Your task to perform on an android device: turn vacation reply on in the gmail app Image 0: 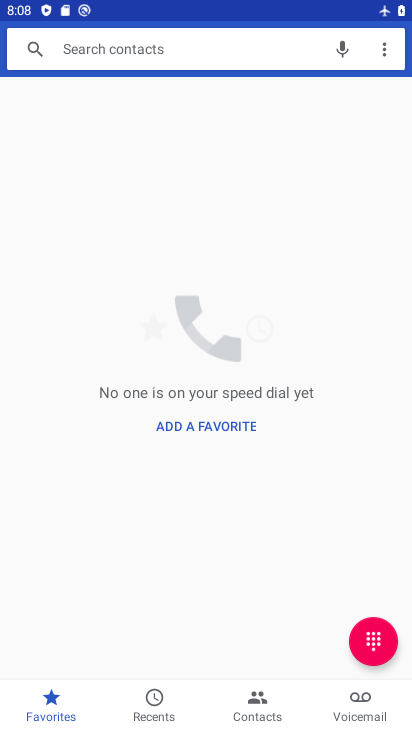
Step 0: press home button
Your task to perform on an android device: turn vacation reply on in the gmail app Image 1: 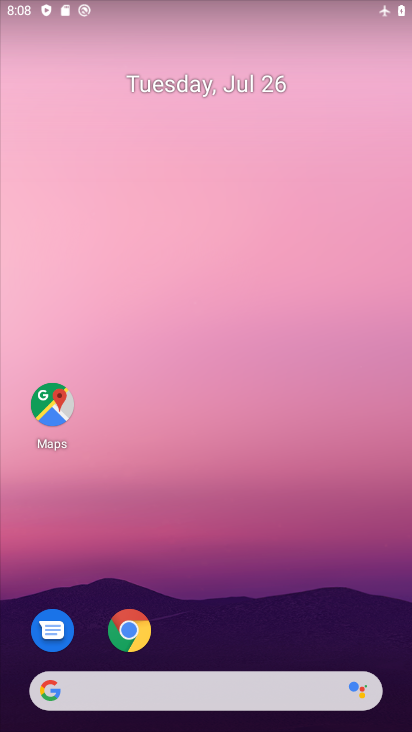
Step 1: drag from (240, 432) to (219, 0)
Your task to perform on an android device: turn vacation reply on in the gmail app Image 2: 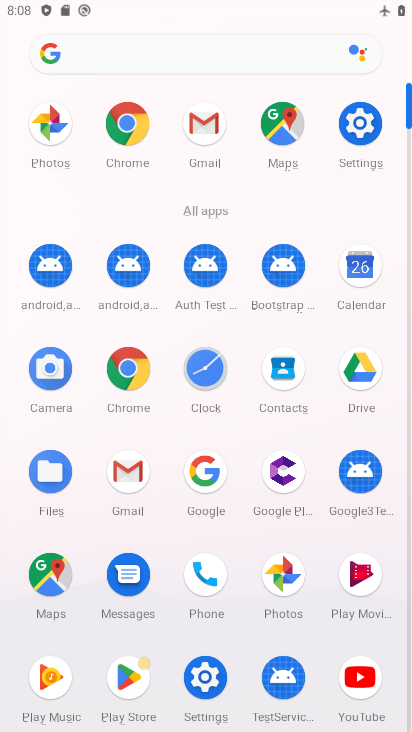
Step 2: click (226, 101)
Your task to perform on an android device: turn vacation reply on in the gmail app Image 3: 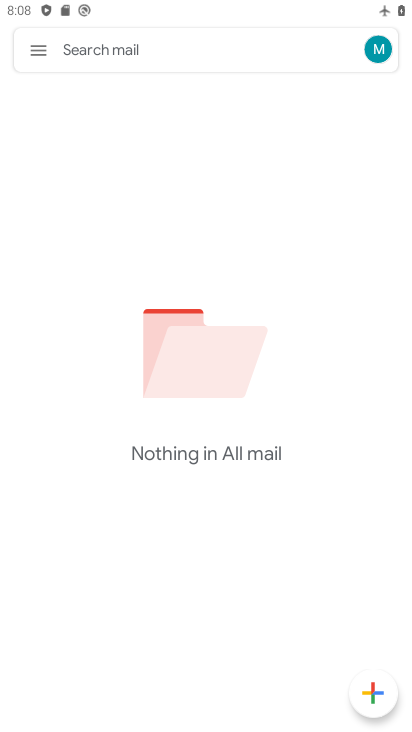
Step 3: click (40, 49)
Your task to perform on an android device: turn vacation reply on in the gmail app Image 4: 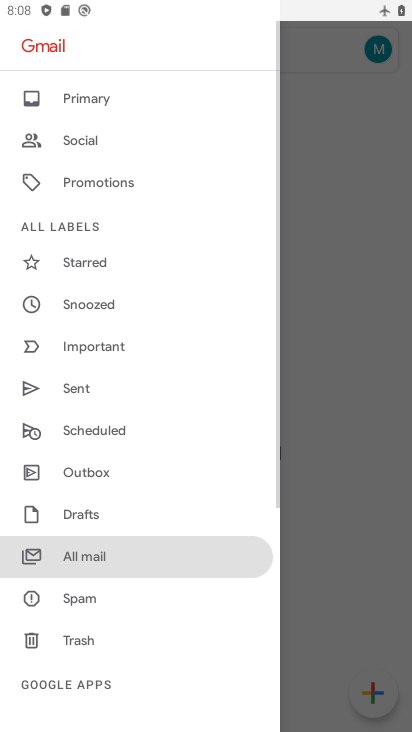
Step 4: drag from (122, 615) to (194, 30)
Your task to perform on an android device: turn vacation reply on in the gmail app Image 5: 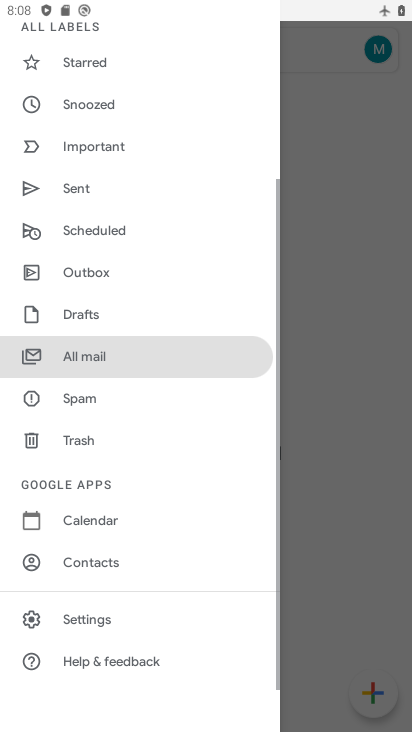
Step 5: click (102, 622)
Your task to perform on an android device: turn vacation reply on in the gmail app Image 6: 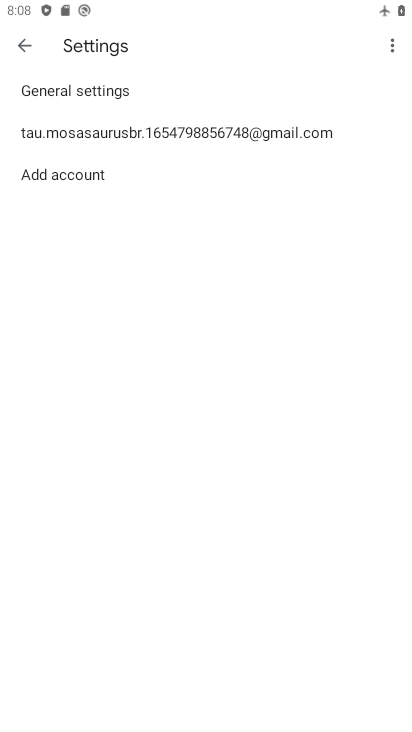
Step 6: click (100, 136)
Your task to perform on an android device: turn vacation reply on in the gmail app Image 7: 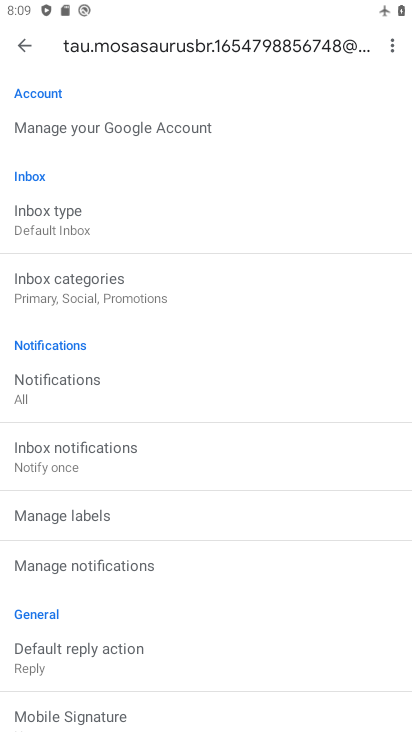
Step 7: drag from (136, 619) to (93, 140)
Your task to perform on an android device: turn vacation reply on in the gmail app Image 8: 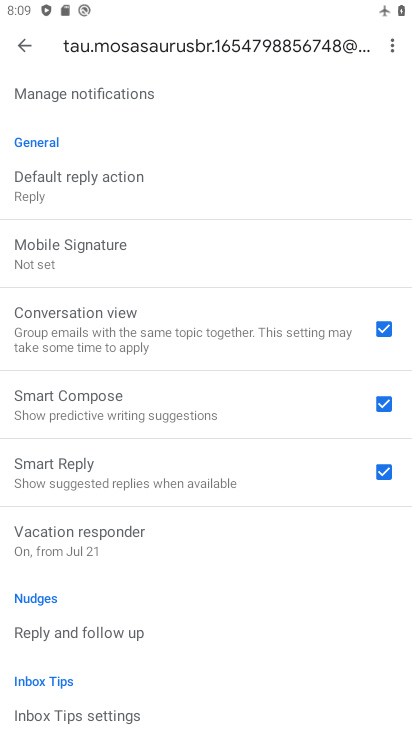
Step 8: click (137, 538)
Your task to perform on an android device: turn vacation reply on in the gmail app Image 9: 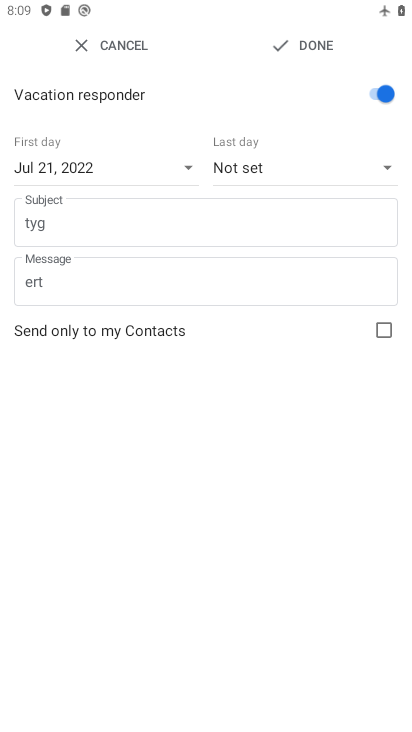
Step 9: task complete